Your task to perform on an android device: toggle translation in the chrome app Image 0: 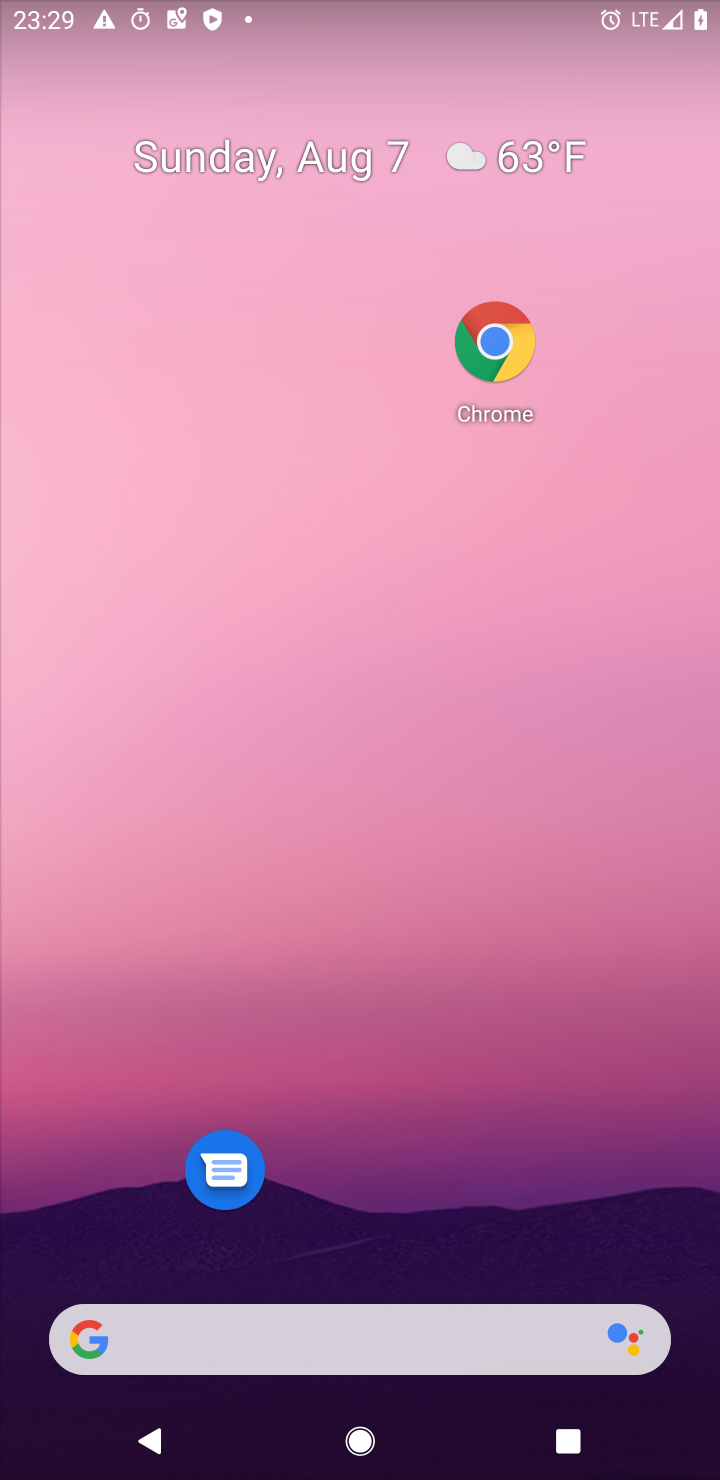
Step 0: drag from (311, 1115) to (311, 19)
Your task to perform on an android device: toggle translation in the chrome app Image 1: 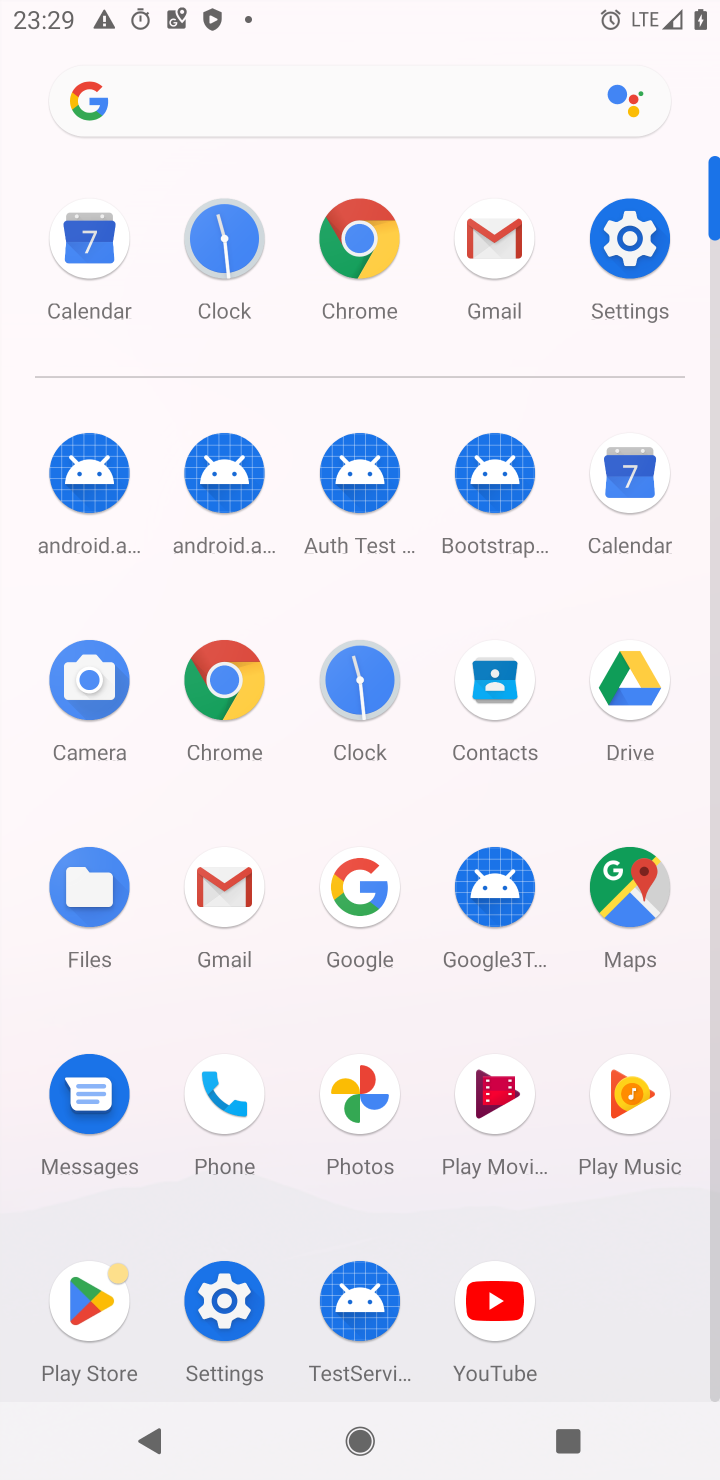
Step 1: click (227, 685)
Your task to perform on an android device: toggle translation in the chrome app Image 2: 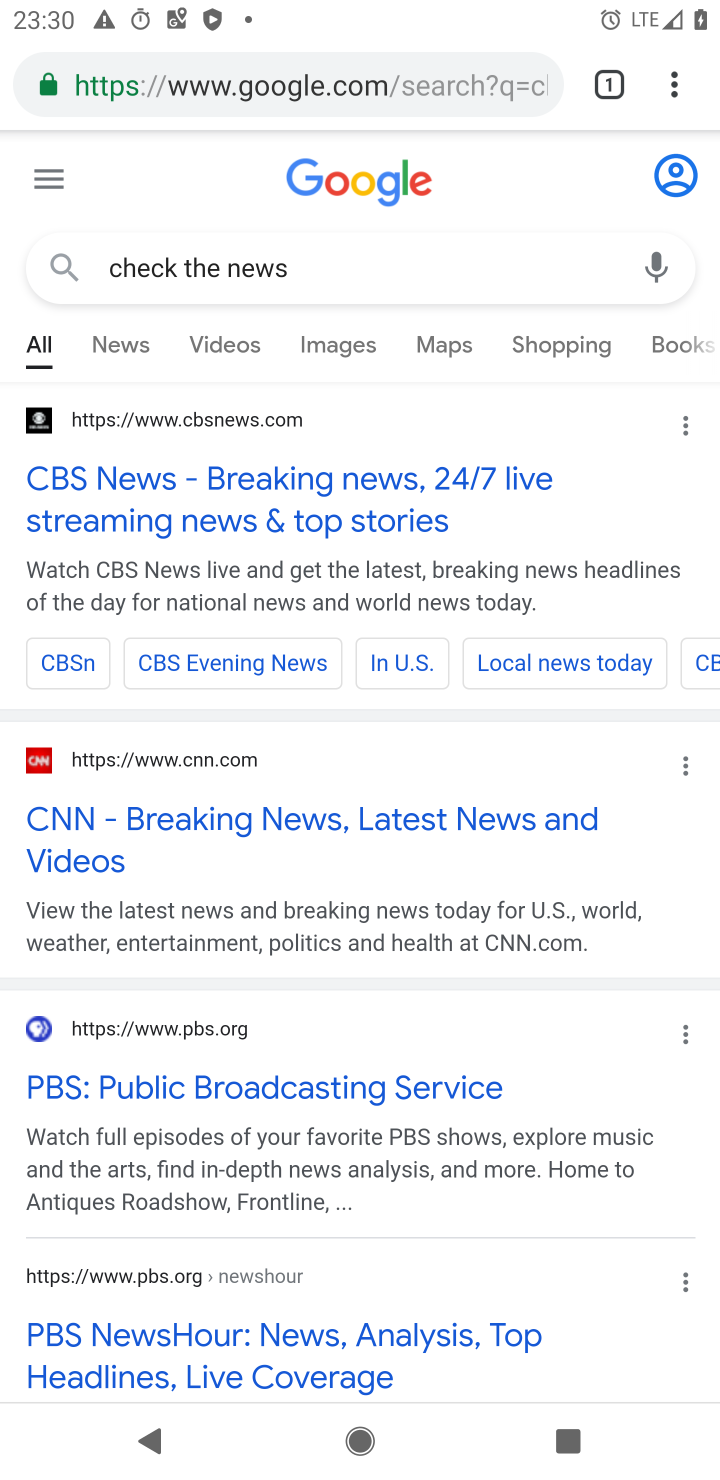
Step 2: click (683, 83)
Your task to perform on an android device: toggle translation in the chrome app Image 3: 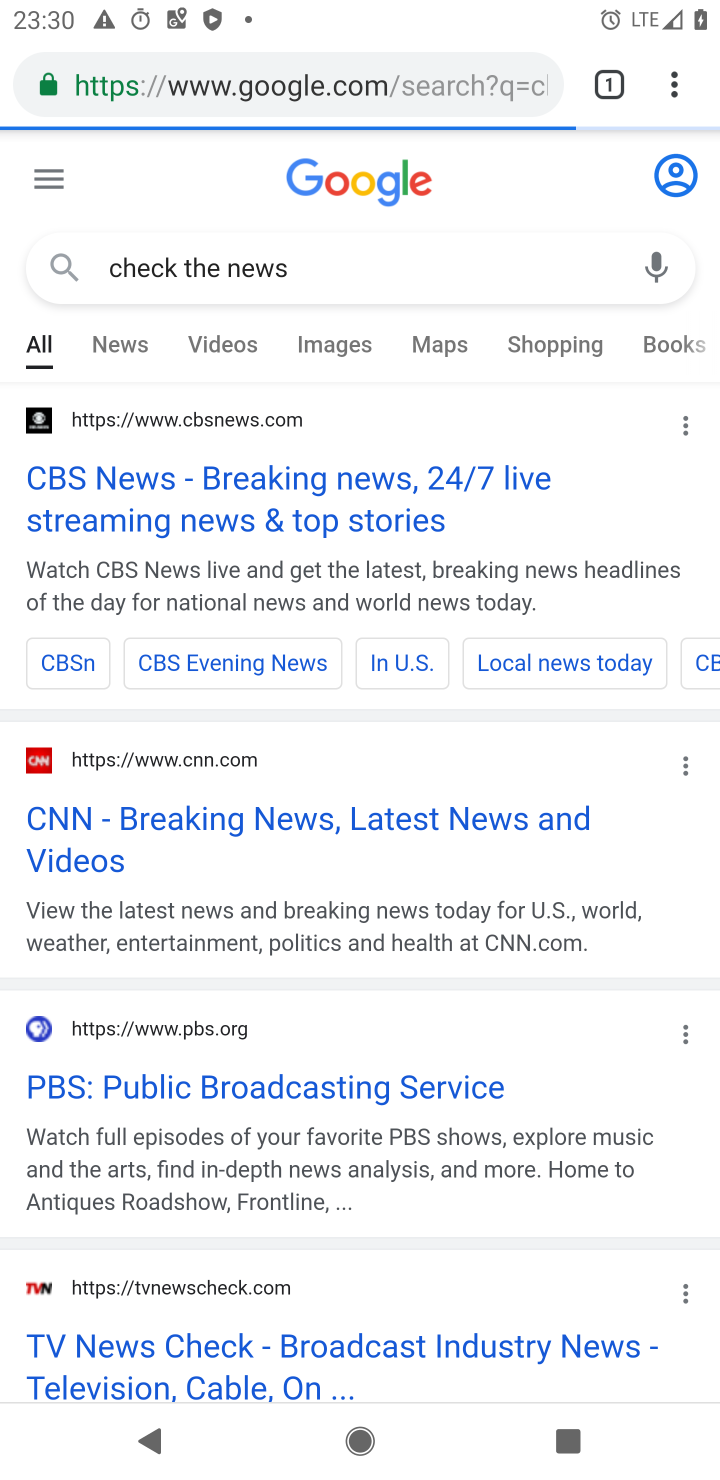
Step 3: drag from (683, 83) to (382, 947)
Your task to perform on an android device: toggle translation in the chrome app Image 4: 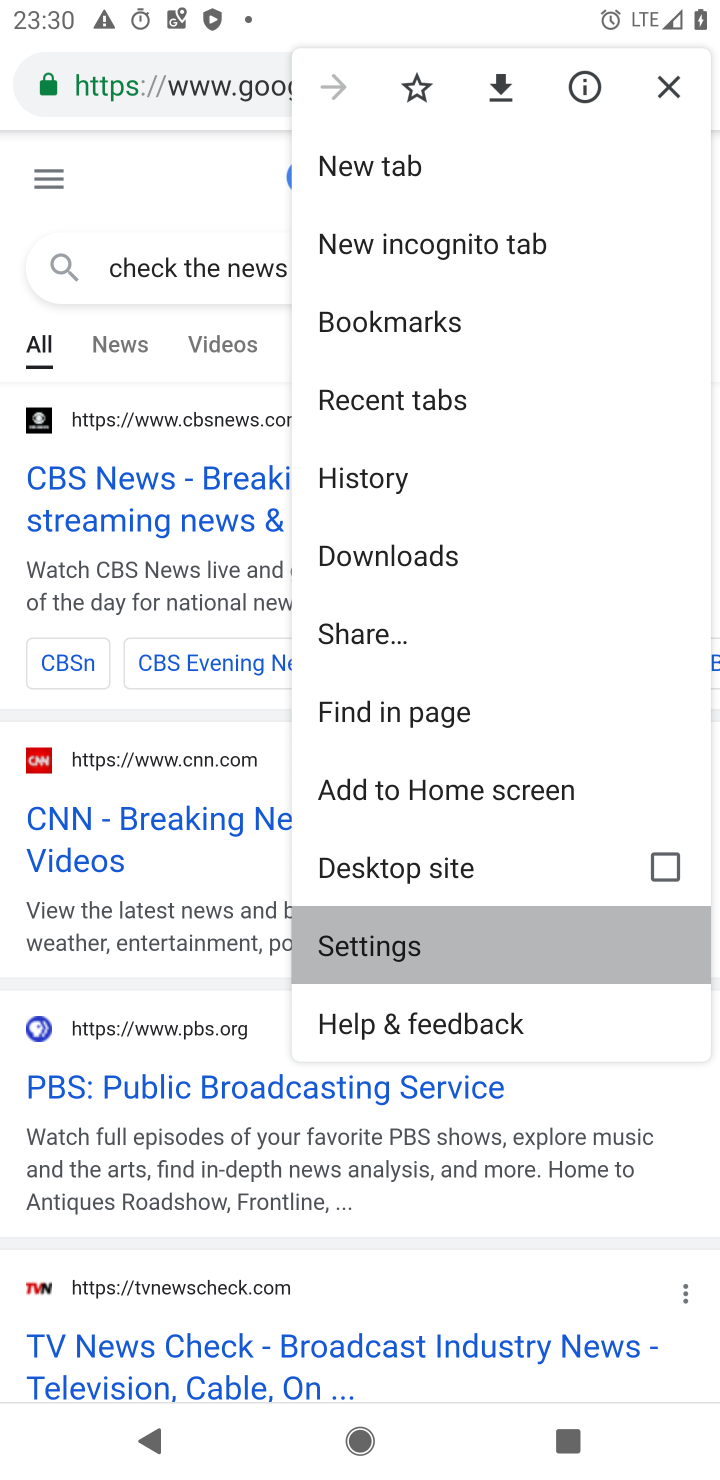
Step 4: click (382, 947)
Your task to perform on an android device: toggle translation in the chrome app Image 5: 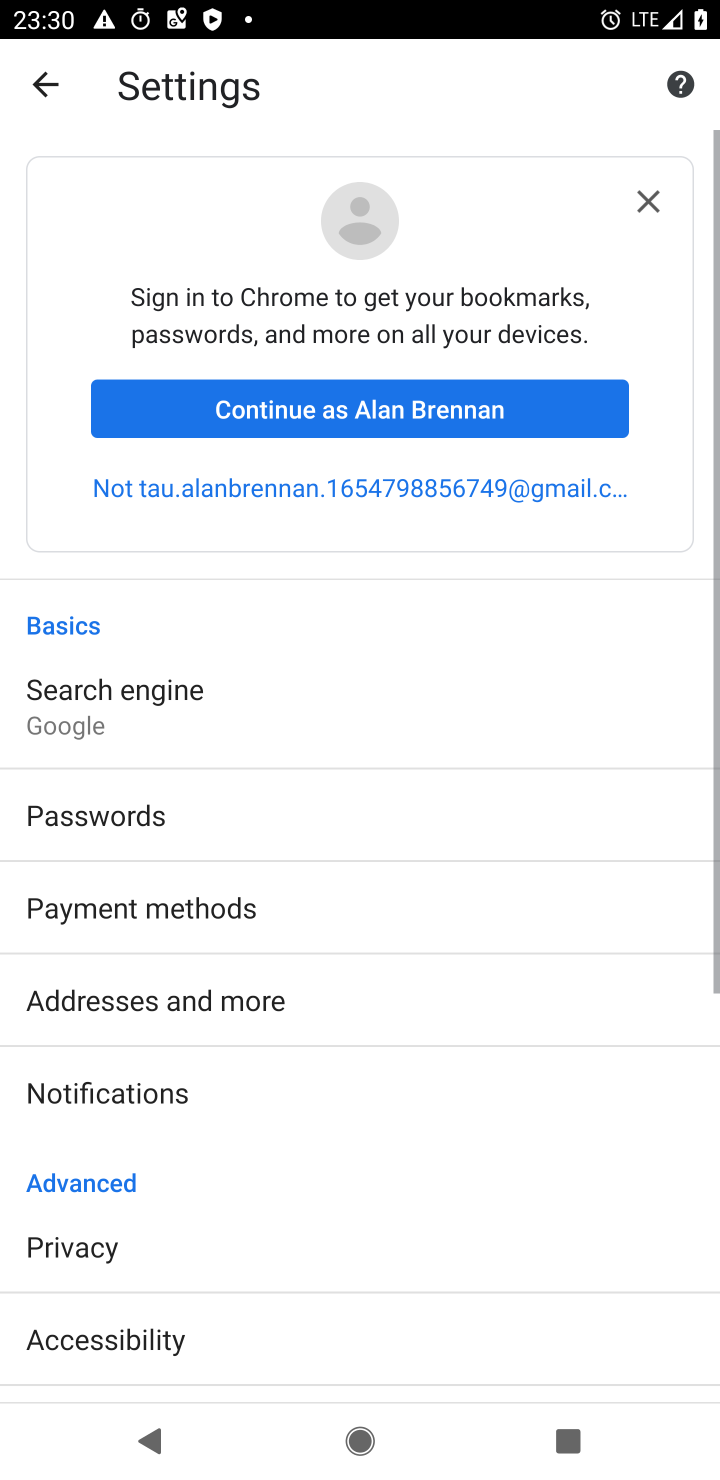
Step 5: drag from (359, 1283) to (396, 334)
Your task to perform on an android device: toggle translation in the chrome app Image 6: 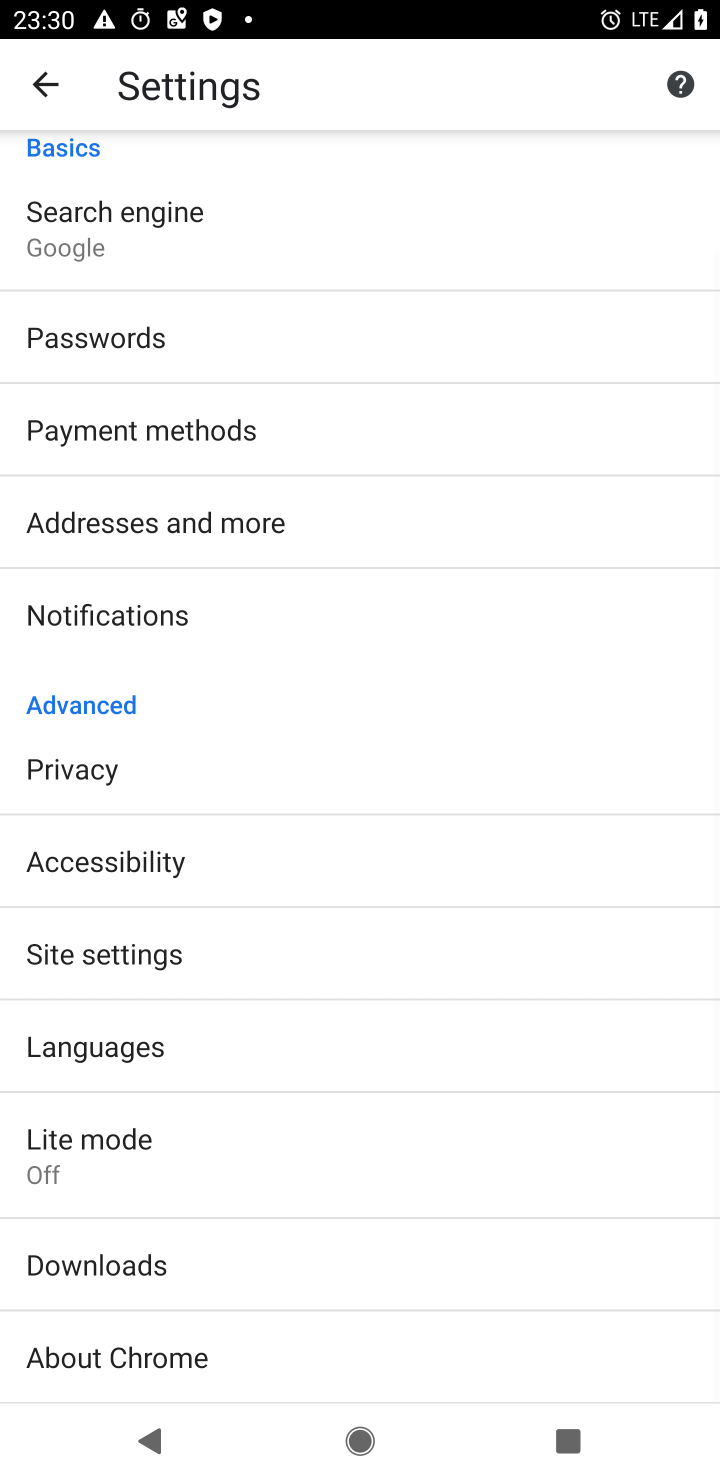
Step 6: click (230, 1055)
Your task to perform on an android device: toggle translation in the chrome app Image 7: 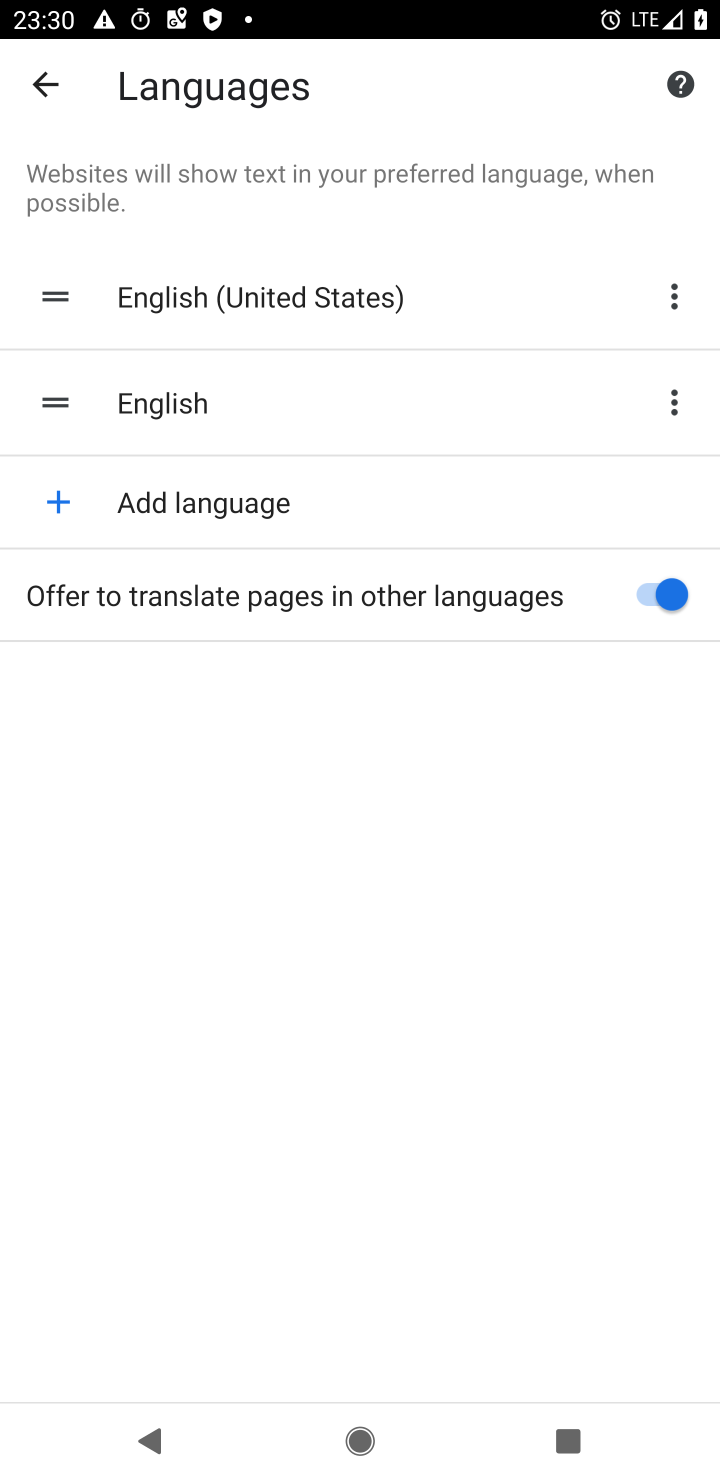
Step 7: click (634, 581)
Your task to perform on an android device: toggle translation in the chrome app Image 8: 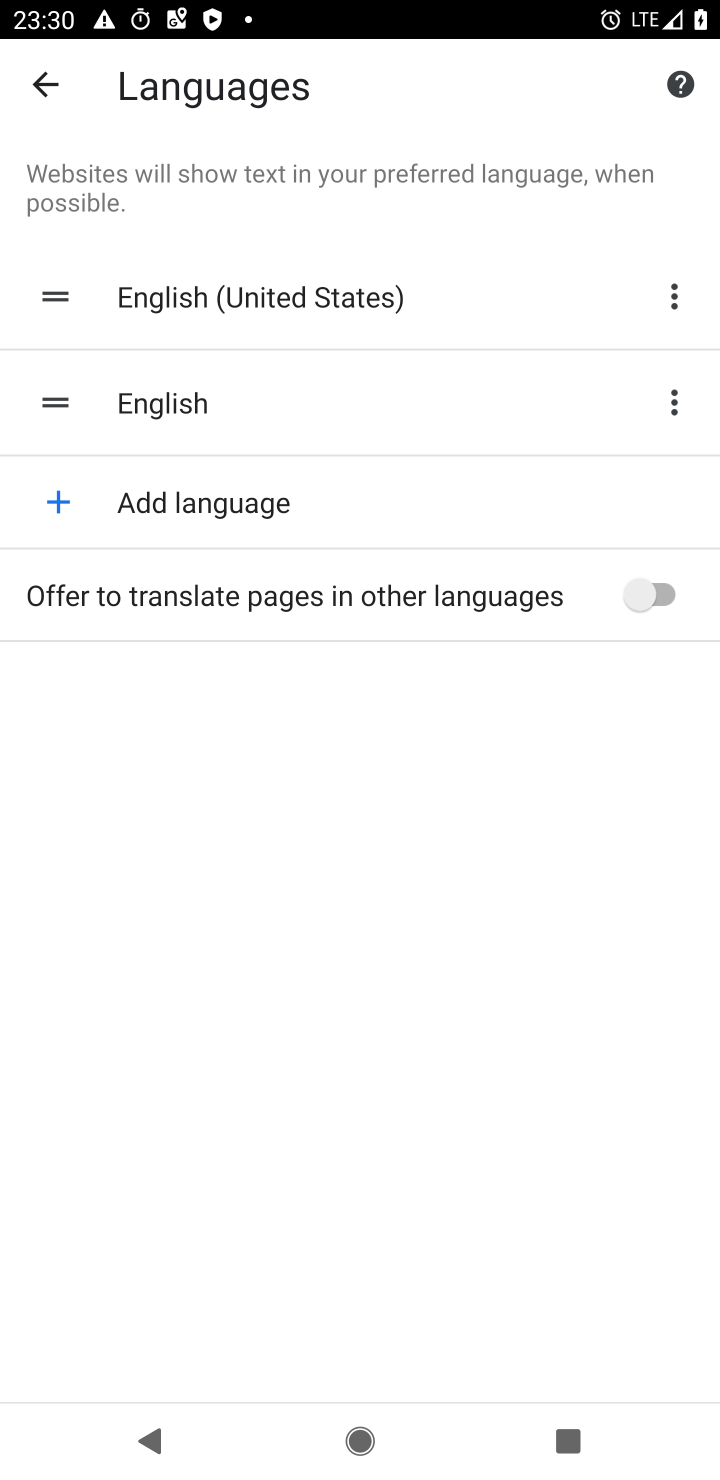
Step 8: task complete